Your task to perform on an android device: Do I have any events this weekend? Image 0: 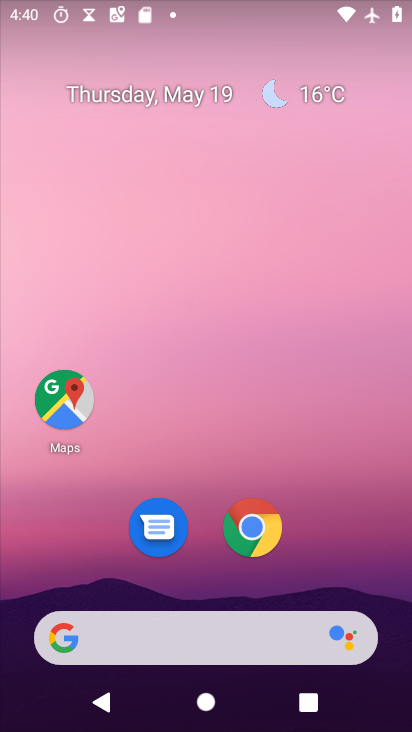
Step 0: drag from (286, 339) to (206, 27)
Your task to perform on an android device: Do I have any events this weekend? Image 1: 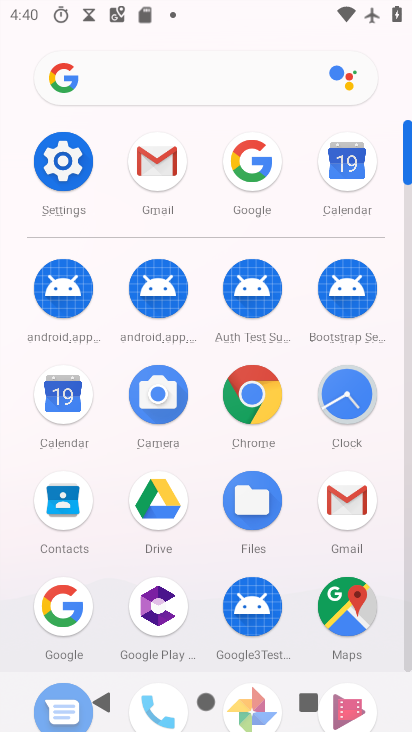
Step 1: click (350, 168)
Your task to perform on an android device: Do I have any events this weekend? Image 2: 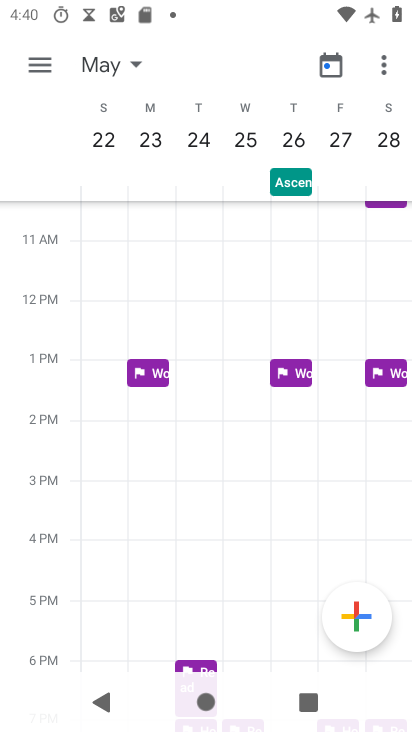
Step 2: click (110, 69)
Your task to perform on an android device: Do I have any events this weekend? Image 3: 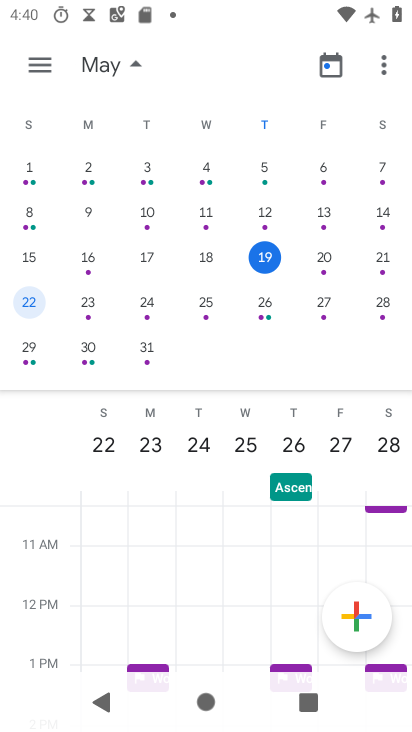
Step 3: click (28, 255)
Your task to perform on an android device: Do I have any events this weekend? Image 4: 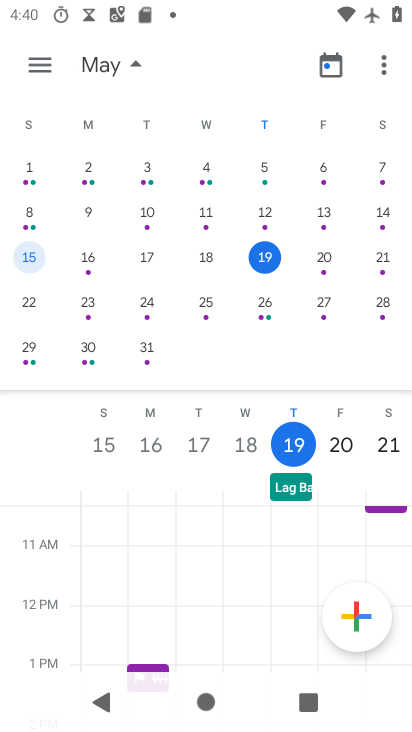
Step 4: task complete